Your task to perform on an android device: open chrome privacy settings Image 0: 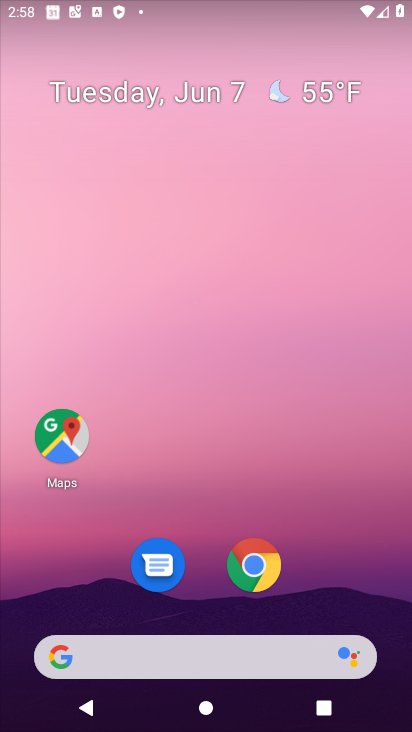
Step 0: drag from (240, 681) to (274, 29)
Your task to perform on an android device: open chrome privacy settings Image 1: 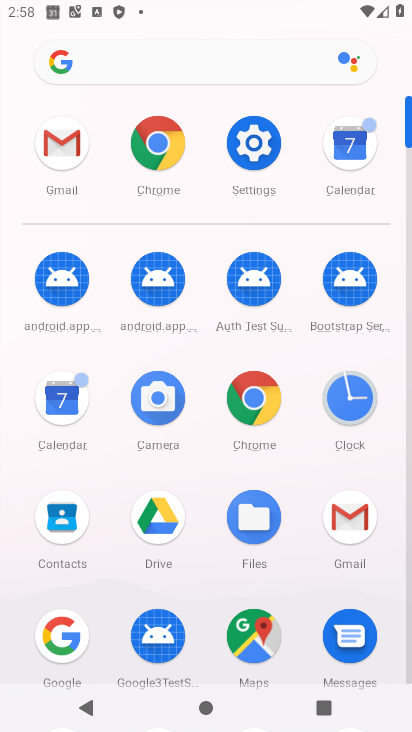
Step 1: click (263, 149)
Your task to perform on an android device: open chrome privacy settings Image 2: 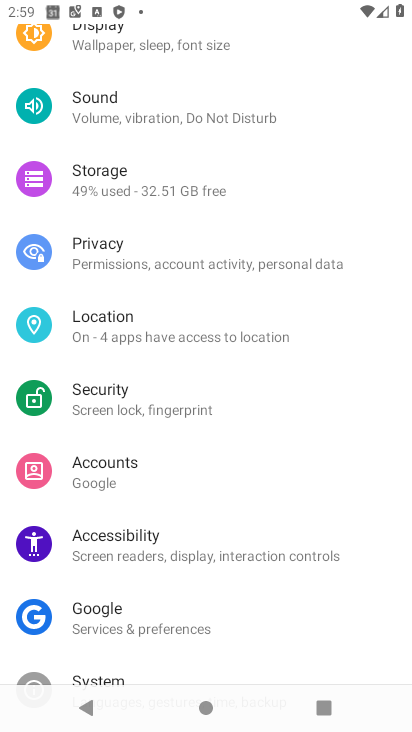
Step 2: click (129, 224)
Your task to perform on an android device: open chrome privacy settings Image 3: 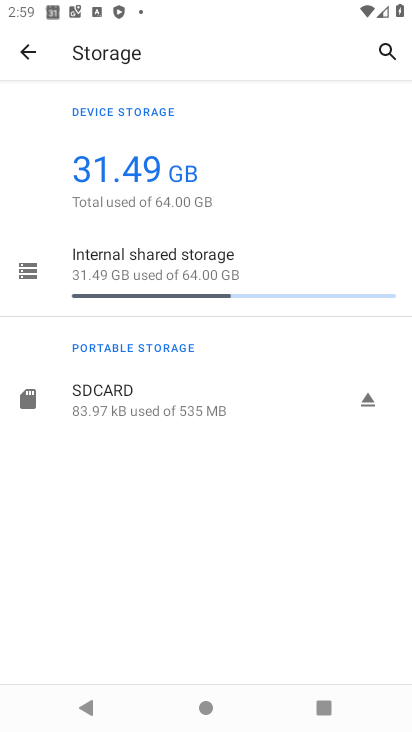
Step 3: press home button
Your task to perform on an android device: open chrome privacy settings Image 4: 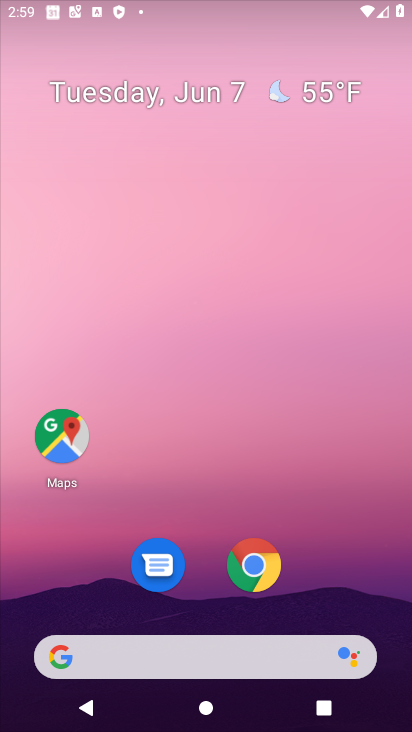
Step 4: drag from (220, 671) to (271, 39)
Your task to perform on an android device: open chrome privacy settings Image 5: 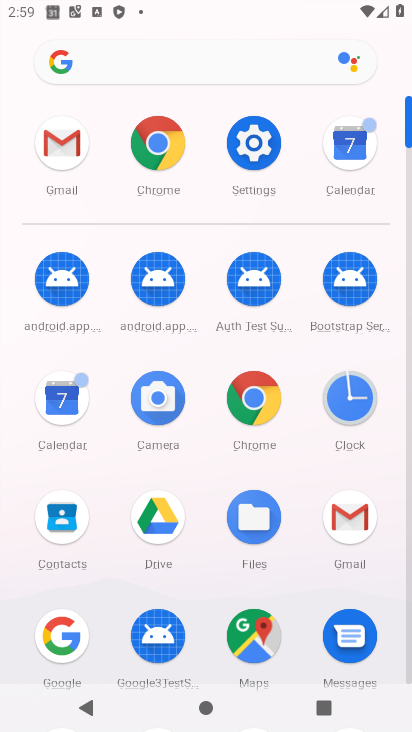
Step 5: click (254, 399)
Your task to perform on an android device: open chrome privacy settings Image 6: 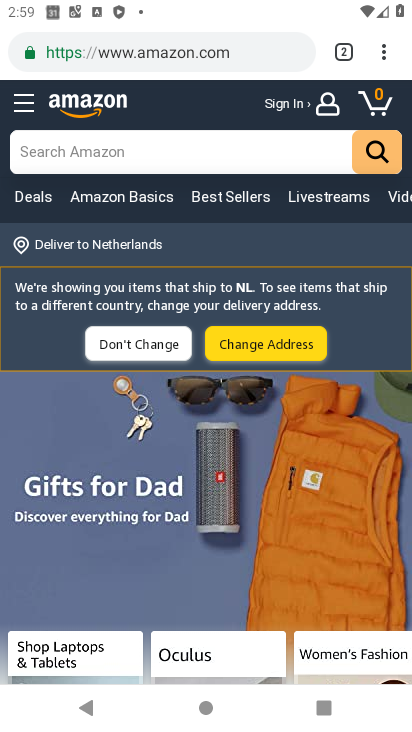
Step 6: drag from (382, 55) to (207, 643)
Your task to perform on an android device: open chrome privacy settings Image 7: 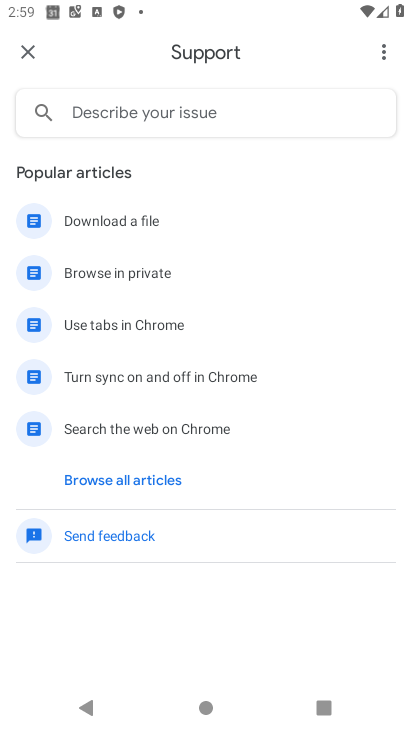
Step 7: press back button
Your task to perform on an android device: open chrome privacy settings Image 8: 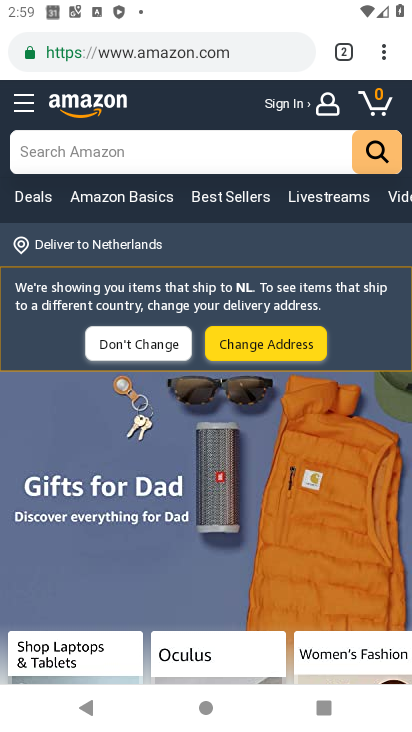
Step 8: drag from (379, 52) to (232, 617)
Your task to perform on an android device: open chrome privacy settings Image 9: 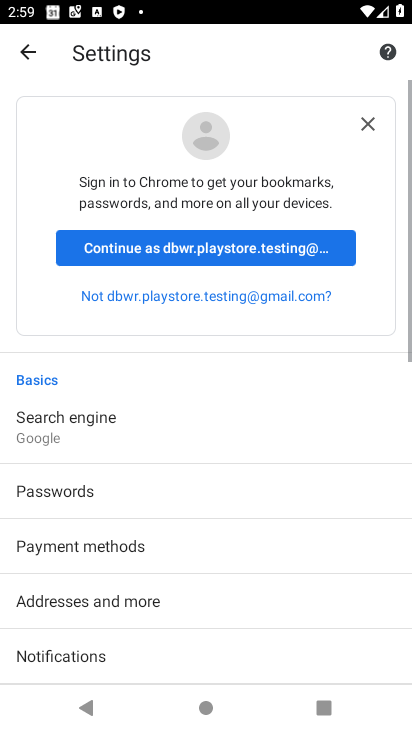
Step 9: drag from (268, 578) to (332, 66)
Your task to perform on an android device: open chrome privacy settings Image 10: 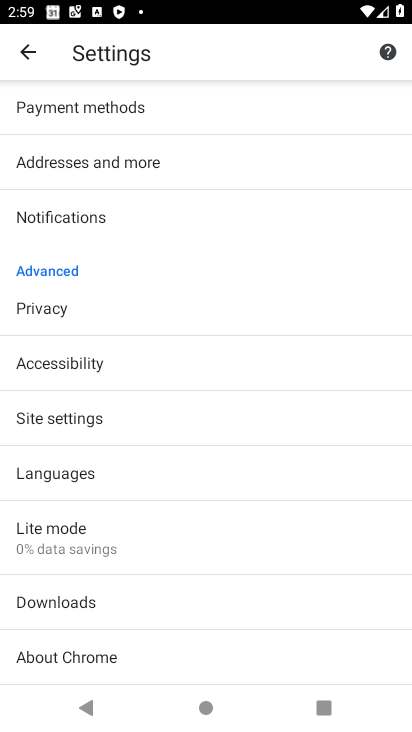
Step 10: click (115, 317)
Your task to perform on an android device: open chrome privacy settings Image 11: 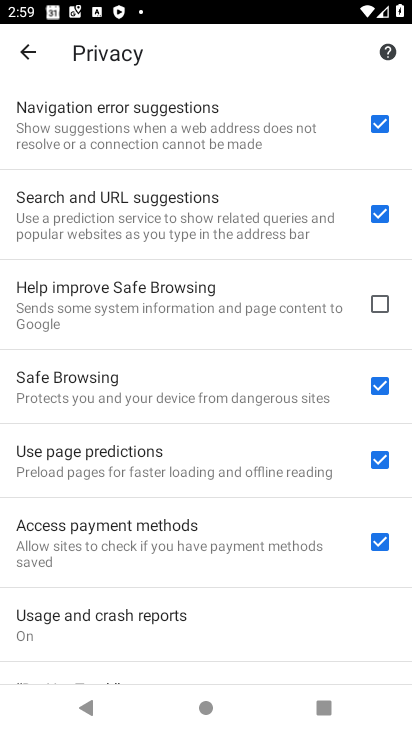
Step 11: task complete